Your task to perform on an android device: toggle wifi Image 0: 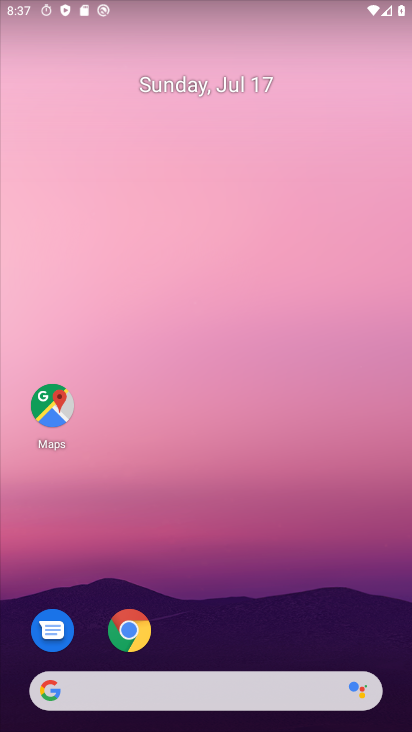
Step 0: drag from (107, 499) to (224, 199)
Your task to perform on an android device: toggle wifi Image 1: 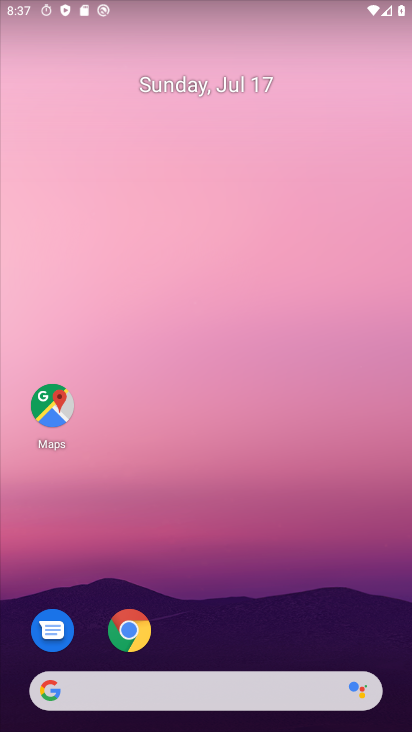
Step 1: click (163, 138)
Your task to perform on an android device: toggle wifi Image 2: 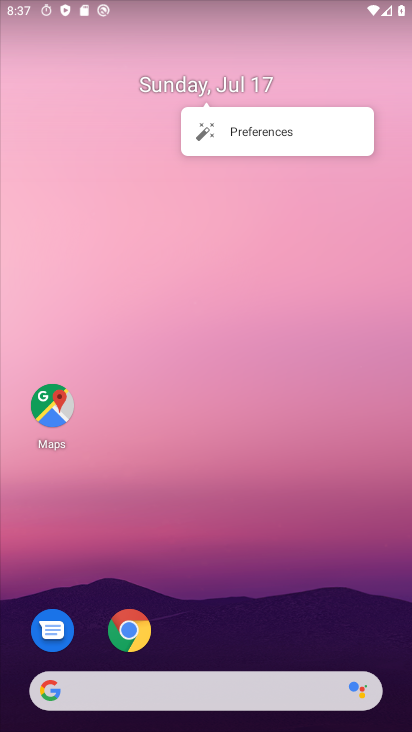
Step 2: drag from (113, 380) to (227, 31)
Your task to perform on an android device: toggle wifi Image 3: 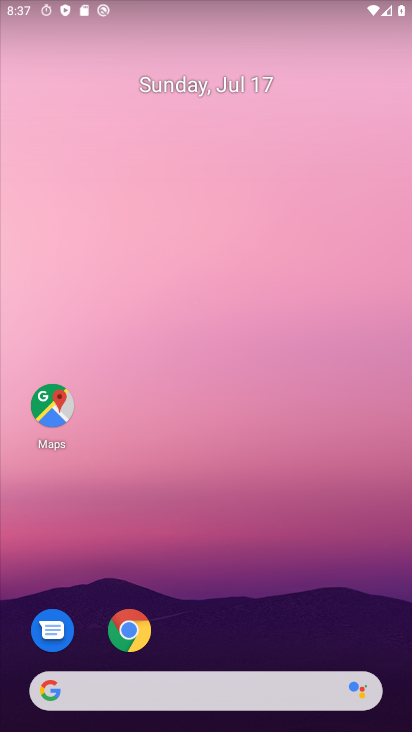
Step 3: drag from (59, 542) to (174, 25)
Your task to perform on an android device: toggle wifi Image 4: 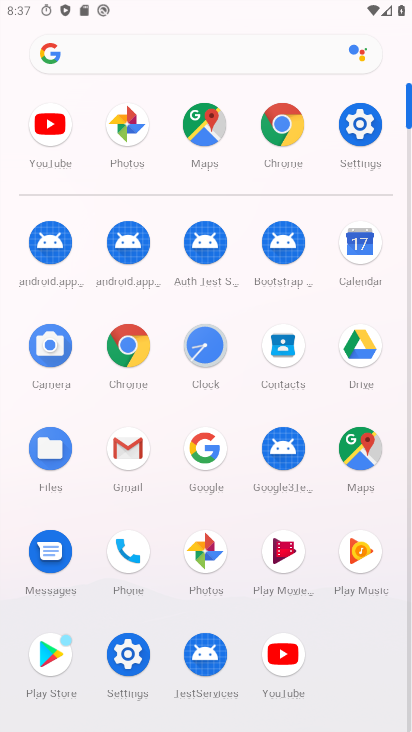
Step 4: click (128, 650)
Your task to perform on an android device: toggle wifi Image 5: 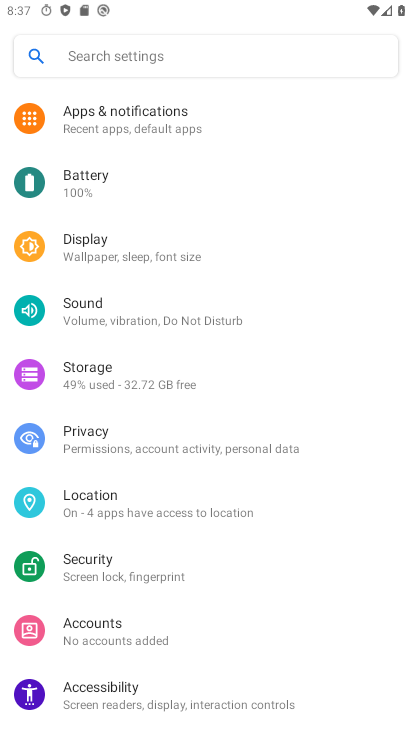
Step 5: click (151, 126)
Your task to perform on an android device: toggle wifi Image 6: 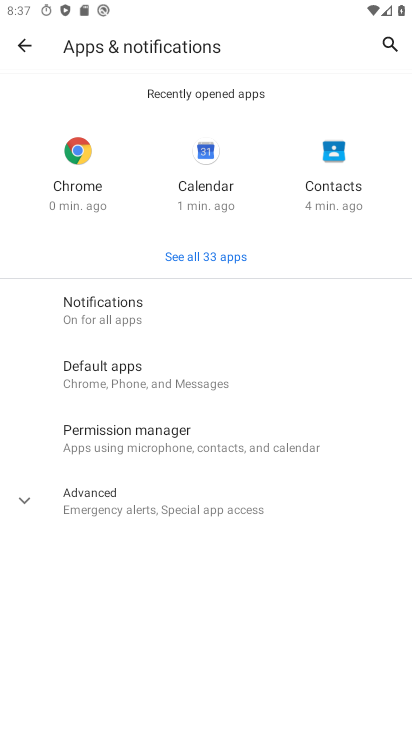
Step 6: click (25, 40)
Your task to perform on an android device: toggle wifi Image 7: 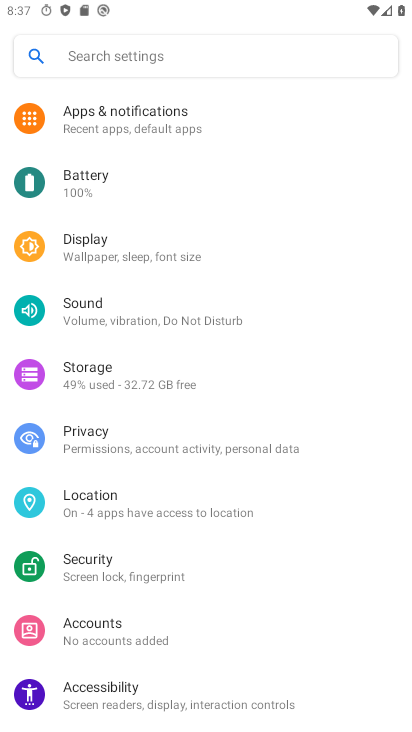
Step 7: drag from (213, 255) to (217, 1)
Your task to perform on an android device: toggle wifi Image 8: 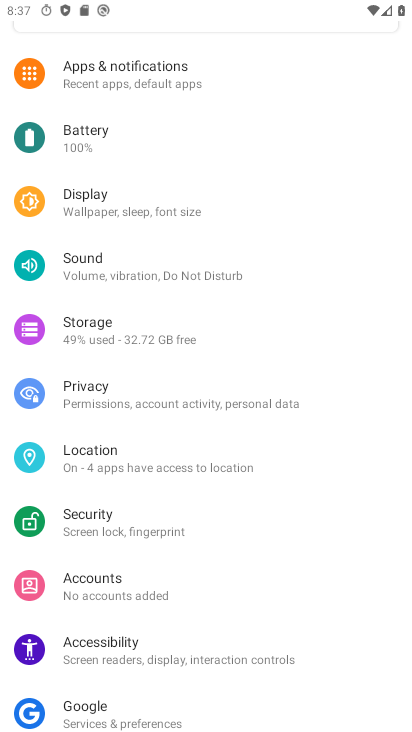
Step 8: drag from (193, 83) to (168, 669)
Your task to perform on an android device: toggle wifi Image 9: 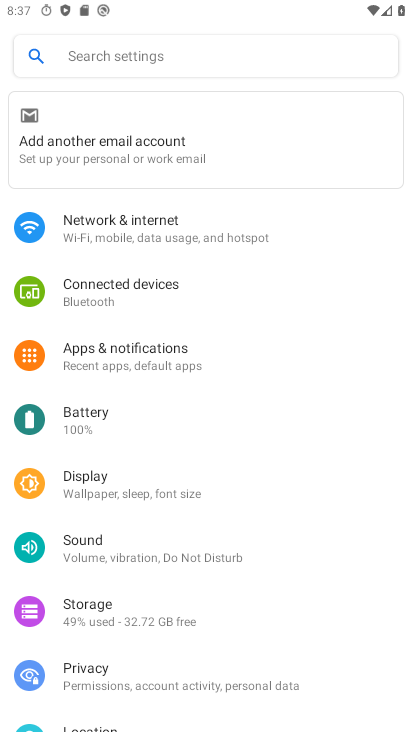
Step 9: click (153, 230)
Your task to perform on an android device: toggle wifi Image 10: 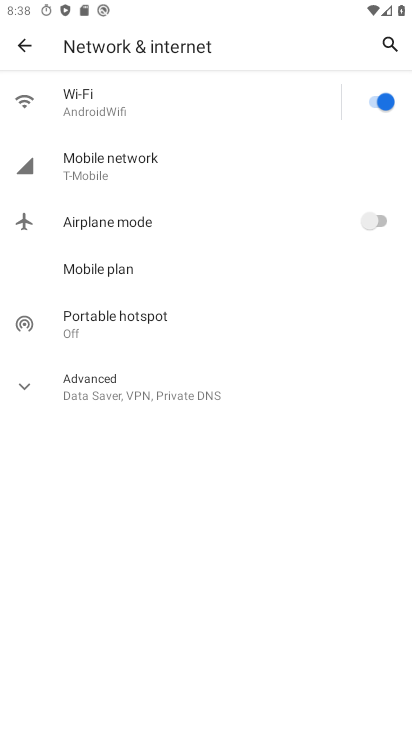
Step 10: task complete